Your task to perform on an android device: find which apps use the phone's location Image 0: 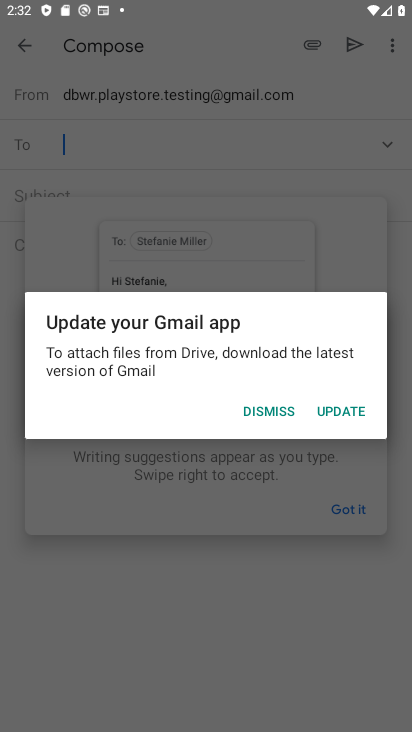
Step 0: press home button
Your task to perform on an android device: find which apps use the phone's location Image 1: 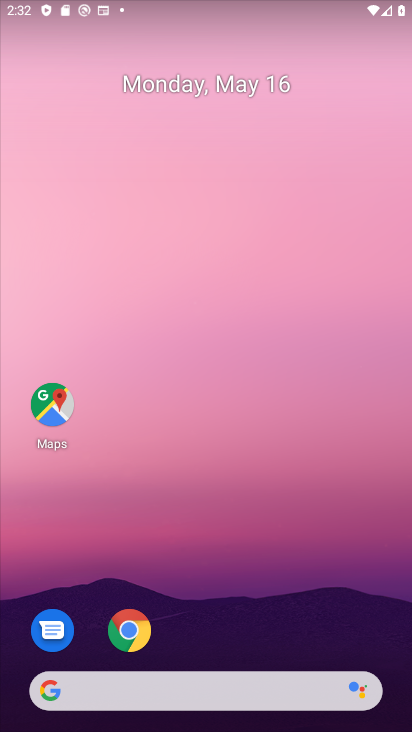
Step 1: drag from (218, 644) to (218, 90)
Your task to perform on an android device: find which apps use the phone's location Image 2: 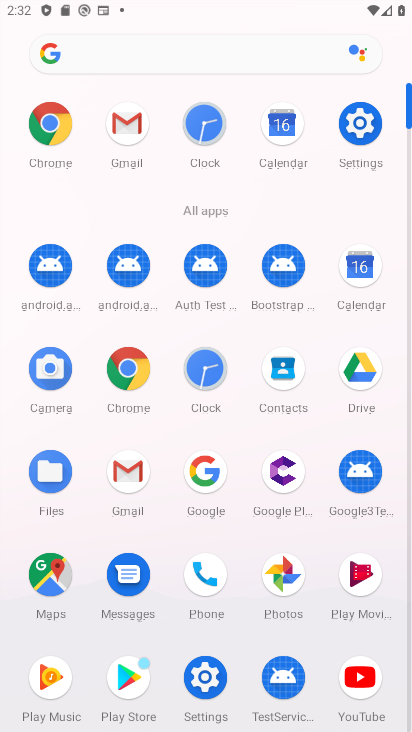
Step 2: click (357, 120)
Your task to perform on an android device: find which apps use the phone's location Image 3: 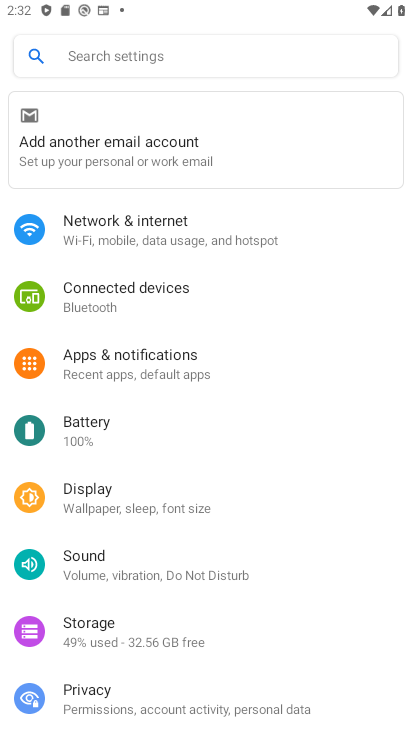
Step 3: drag from (154, 652) to (180, 253)
Your task to perform on an android device: find which apps use the phone's location Image 4: 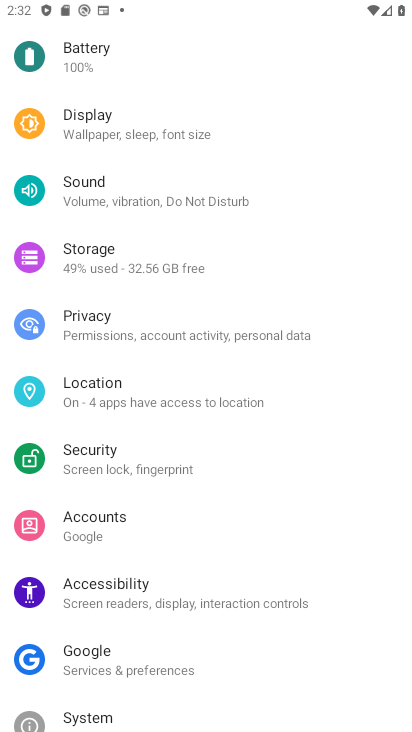
Step 4: click (128, 387)
Your task to perform on an android device: find which apps use the phone's location Image 5: 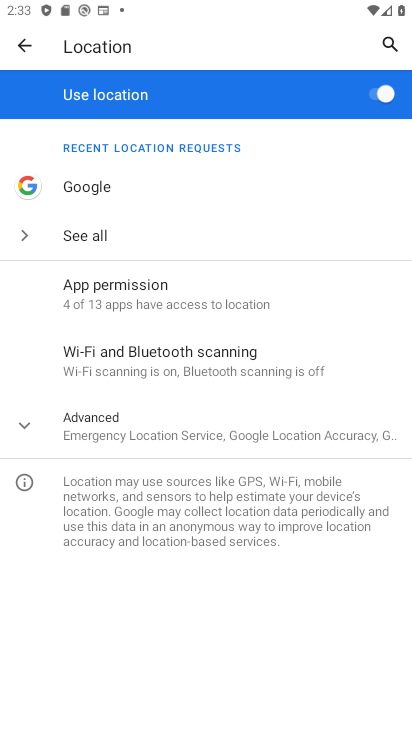
Step 5: click (115, 292)
Your task to perform on an android device: find which apps use the phone's location Image 6: 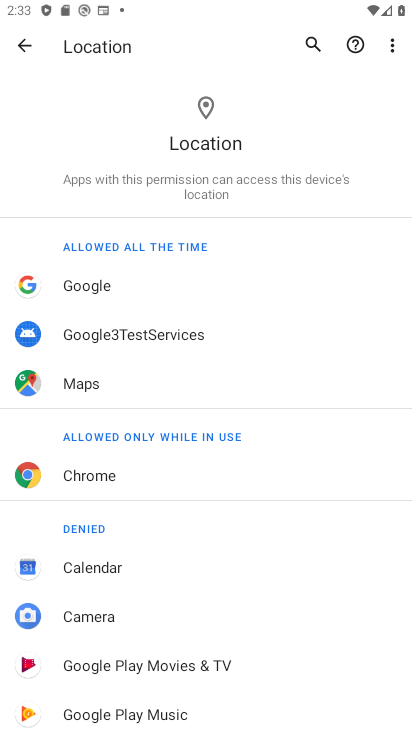
Step 6: task complete